Your task to perform on an android device: Show me popular games on the Play Store Image 0: 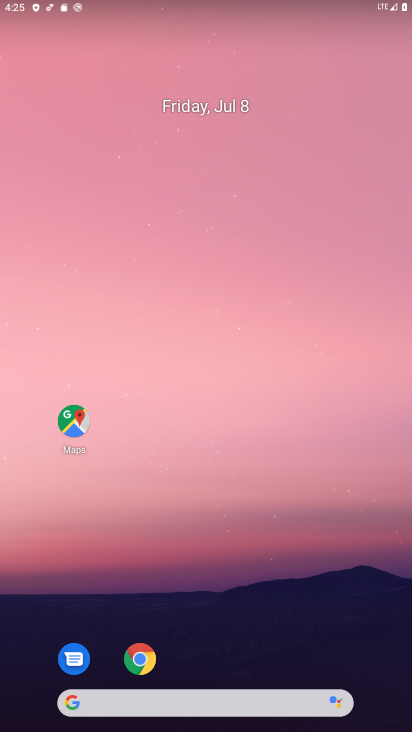
Step 0: drag from (302, 623) to (355, 5)
Your task to perform on an android device: Show me popular games on the Play Store Image 1: 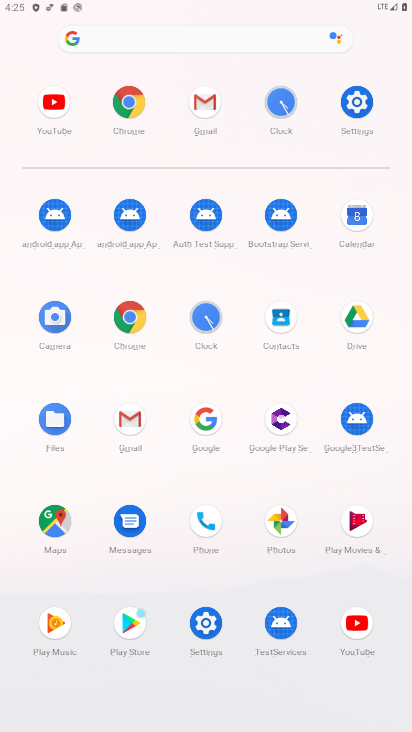
Step 1: click (122, 627)
Your task to perform on an android device: Show me popular games on the Play Store Image 2: 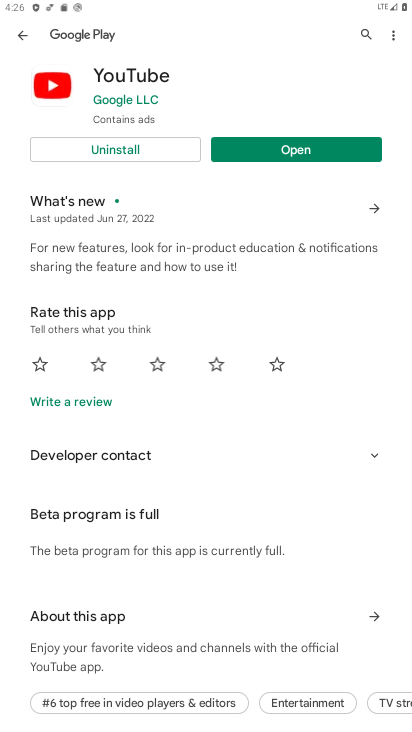
Step 2: click (364, 30)
Your task to perform on an android device: Show me popular games on the Play Store Image 3: 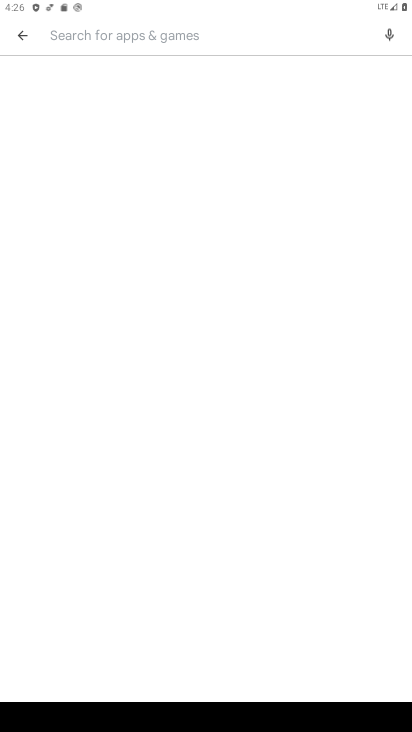
Step 3: type " popular games"
Your task to perform on an android device: Show me popular games on the Play Store Image 4: 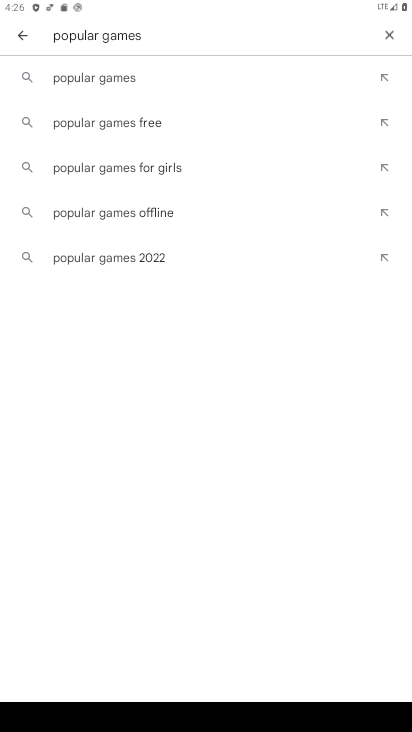
Step 4: click (86, 75)
Your task to perform on an android device: Show me popular games on the Play Store Image 5: 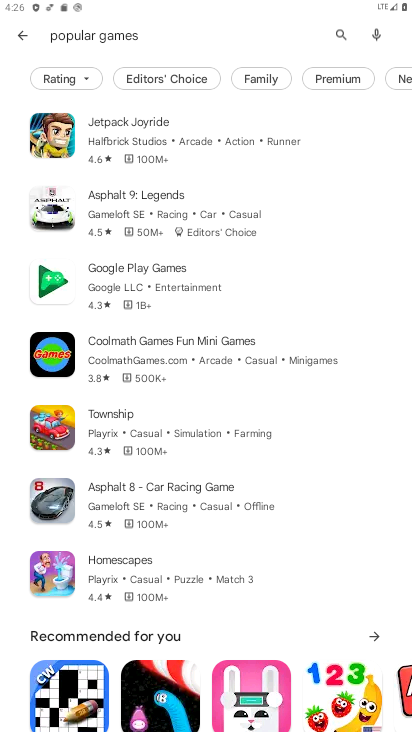
Step 5: task complete